Your task to perform on an android device: visit the assistant section in the google photos Image 0: 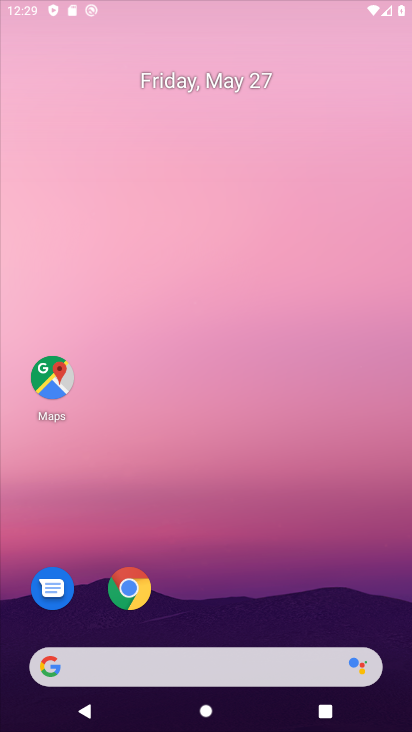
Step 0: press home button
Your task to perform on an android device: visit the assistant section in the google photos Image 1: 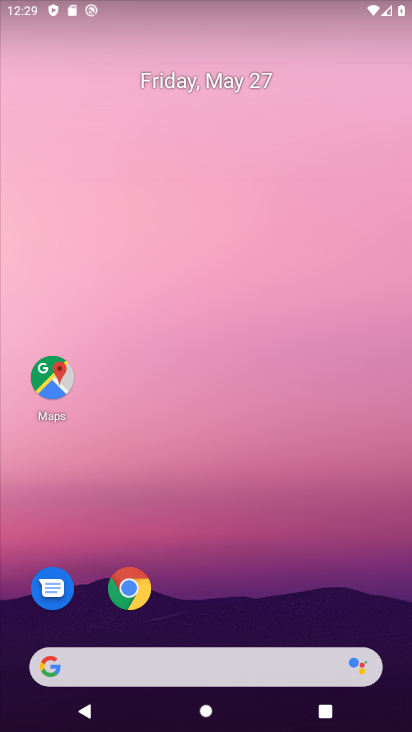
Step 1: drag from (205, 562) to (217, 198)
Your task to perform on an android device: visit the assistant section in the google photos Image 2: 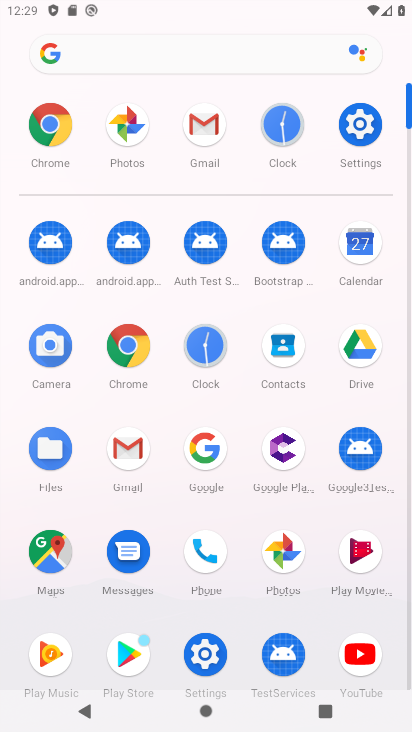
Step 2: click (278, 541)
Your task to perform on an android device: visit the assistant section in the google photos Image 3: 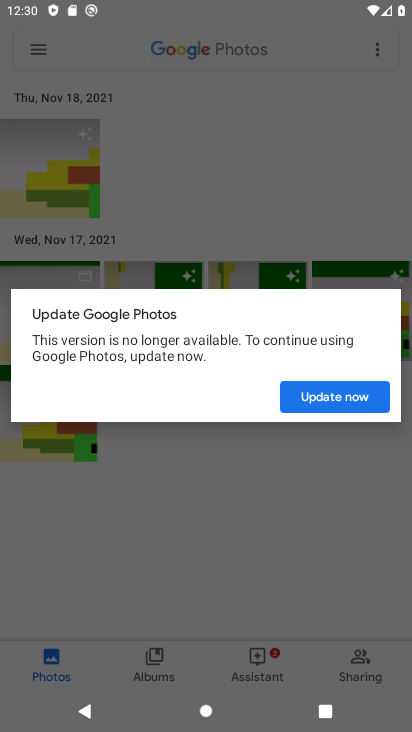
Step 3: click (331, 394)
Your task to perform on an android device: visit the assistant section in the google photos Image 4: 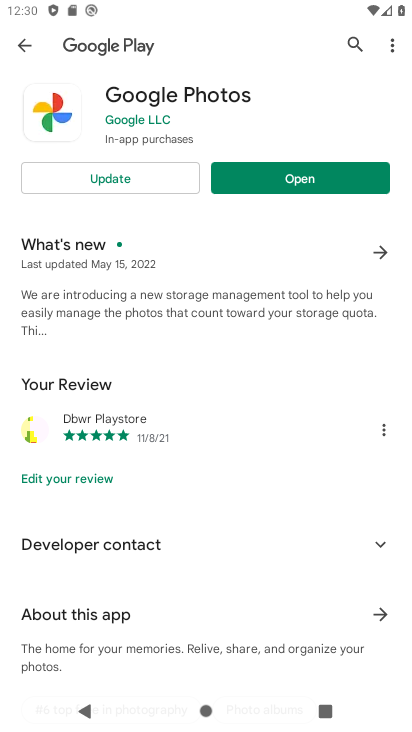
Step 4: click (122, 174)
Your task to perform on an android device: visit the assistant section in the google photos Image 5: 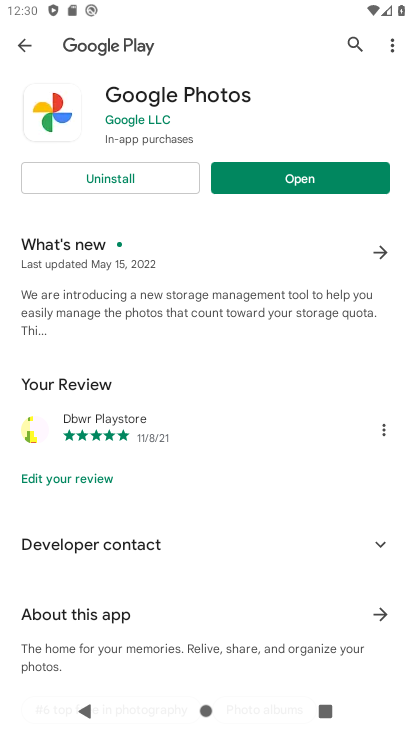
Step 5: click (309, 180)
Your task to perform on an android device: visit the assistant section in the google photos Image 6: 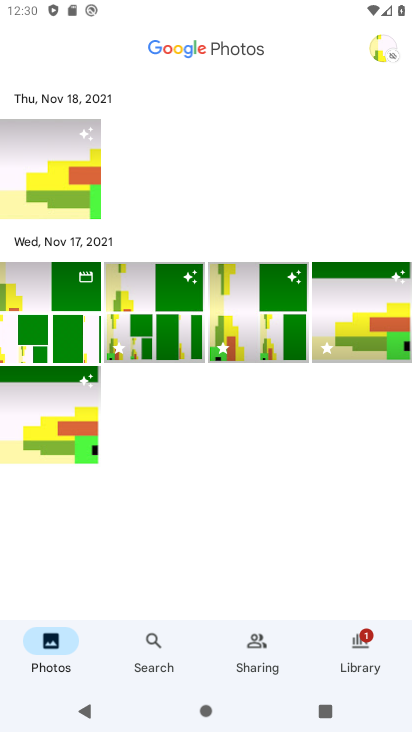
Step 6: task complete